Your task to perform on an android device: Open battery settings Image 0: 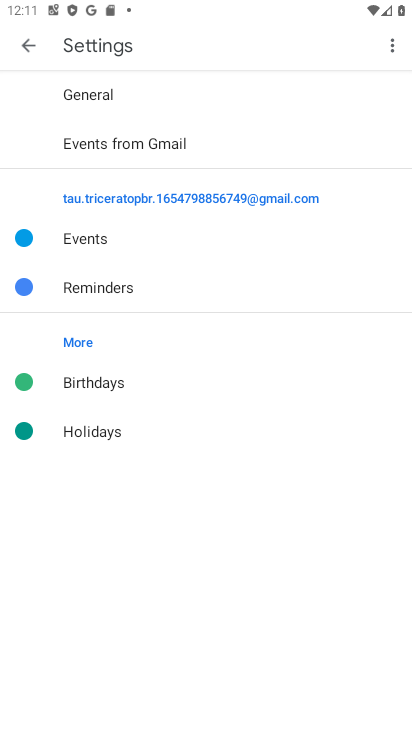
Step 0: press home button
Your task to perform on an android device: Open battery settings Image 1: 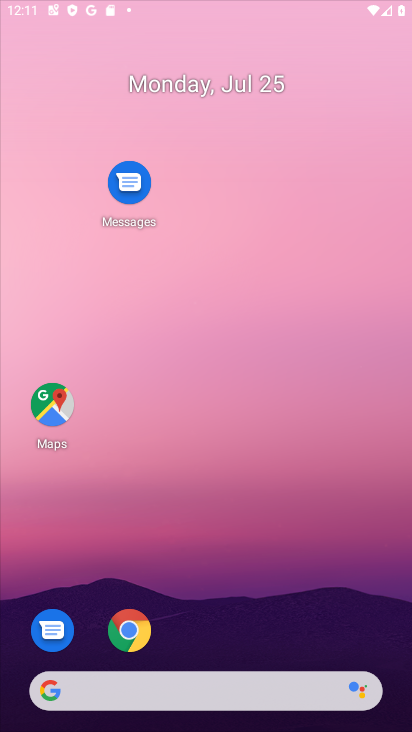
Step 1: drag from (250, 663) to (237, 288)
Your task to perform on an android device: Open battery settings Image 2: 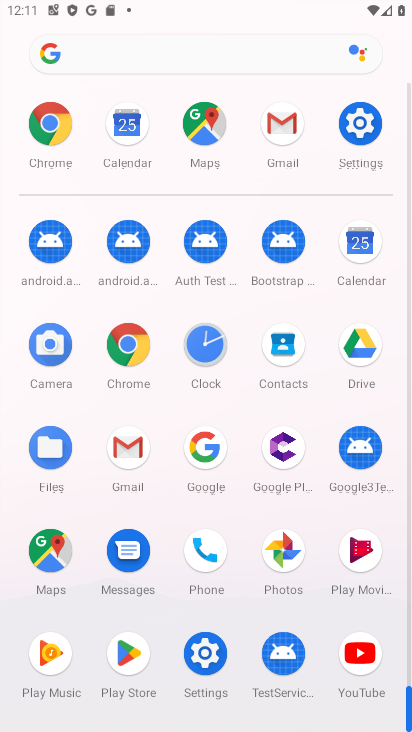
Step 2: click (210, 656)
Your task to perform on an android device: Open battery settings Image 3: 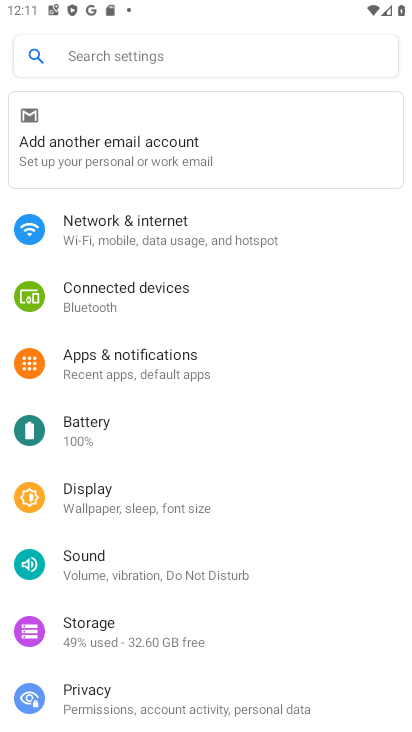
Step 3: click (170, 424)
Your task to perform on an android device: Open battery settings Image 4: 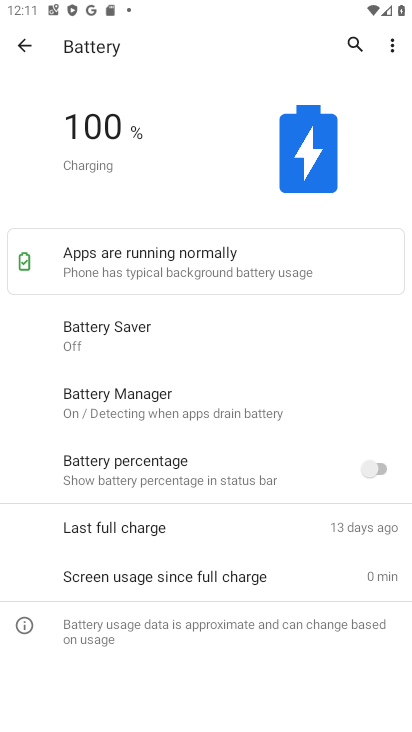
Step 4: task complete